Your task to perform on an android device: Open battery settings Image 0: 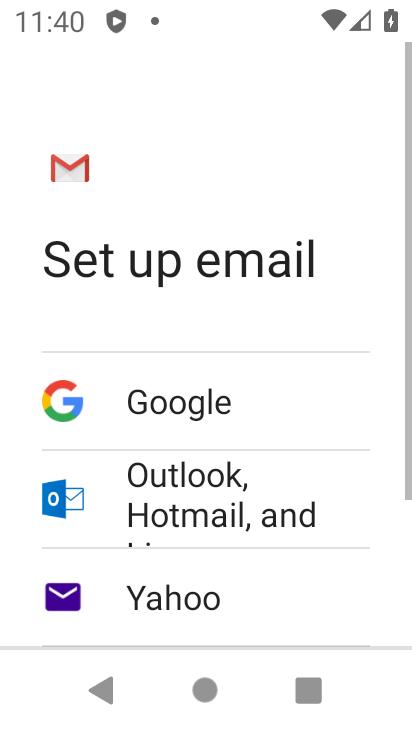
Step 0: press home button
Your task to perform on an android device: Open battery settings Image 1: 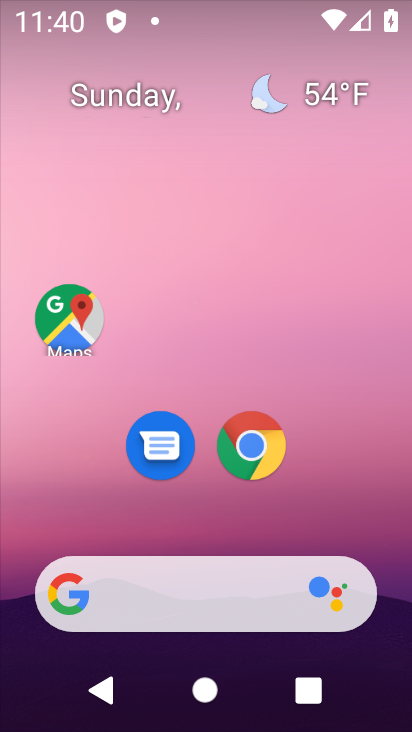
Step 1: drag from (389, 522) to (366, 82)
Your task to perform on an android device: Open battery settings Image 2: 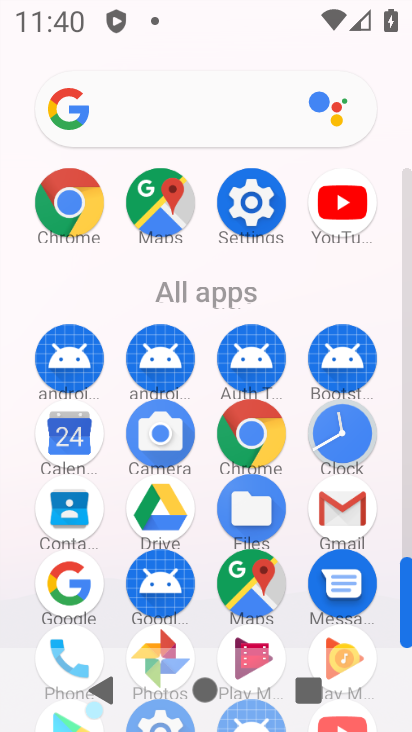
Step 2: drag from (295, 514) to (287, 185)
Your task to perform on an android device: Open battery settings Image 3: 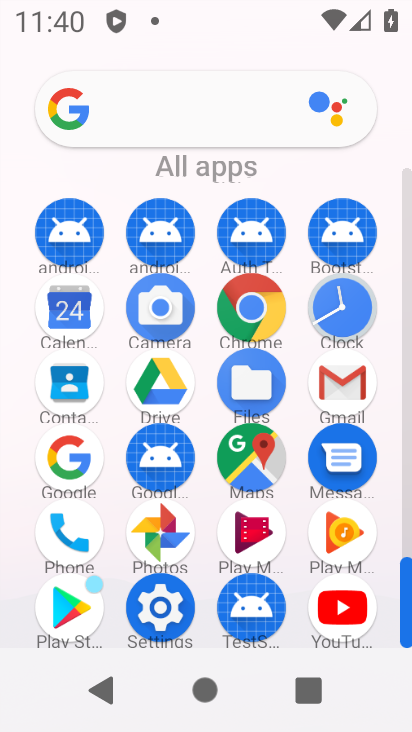
Step 3: click (147, 601)
Your task to perform on an android device: Open battery settings Image 4: 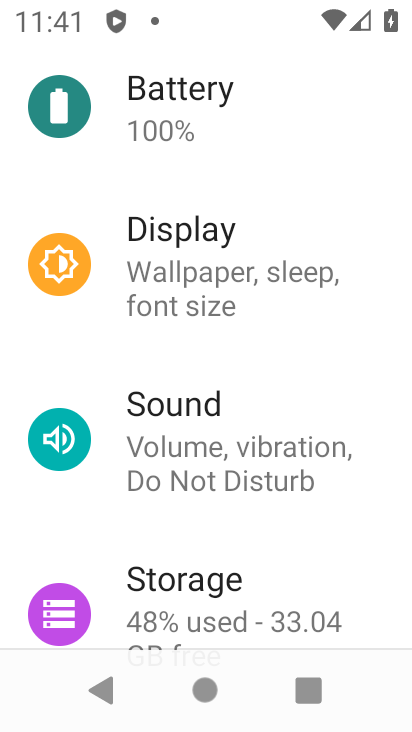
Step 4: click (207, 102)
Your task to perform on an android device: Open battery settings Image 5: 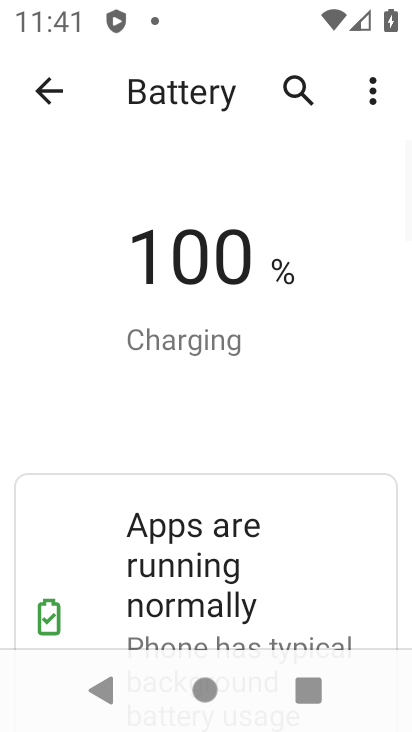
Step 5: task complete